Your task to perform on an android device: turn on translation in the chrome app Image 0: 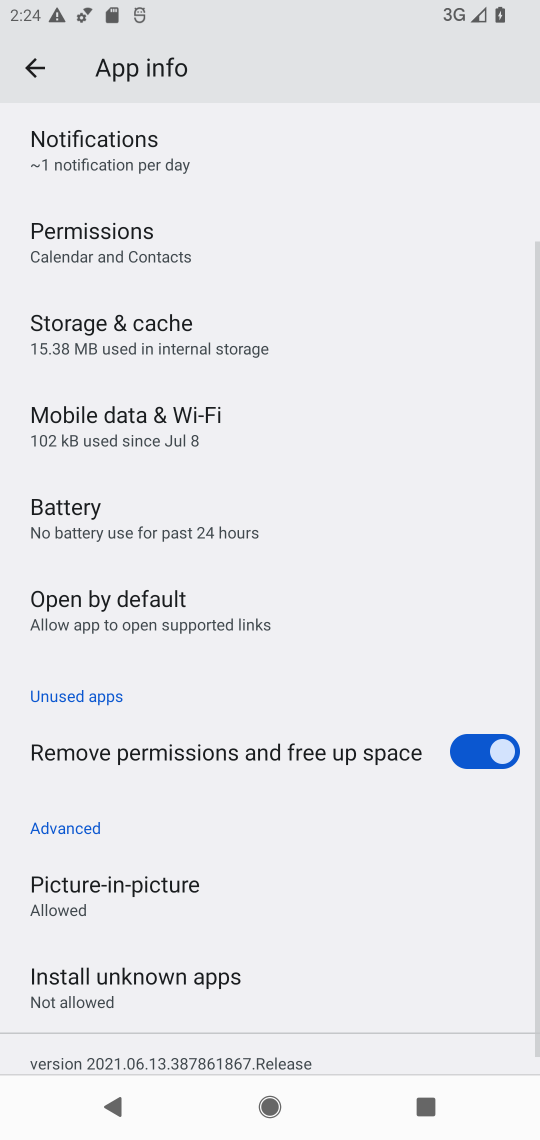
Step 0: press home button
Your task to perform on an android device: turn on translation in the chrome app Image 1: 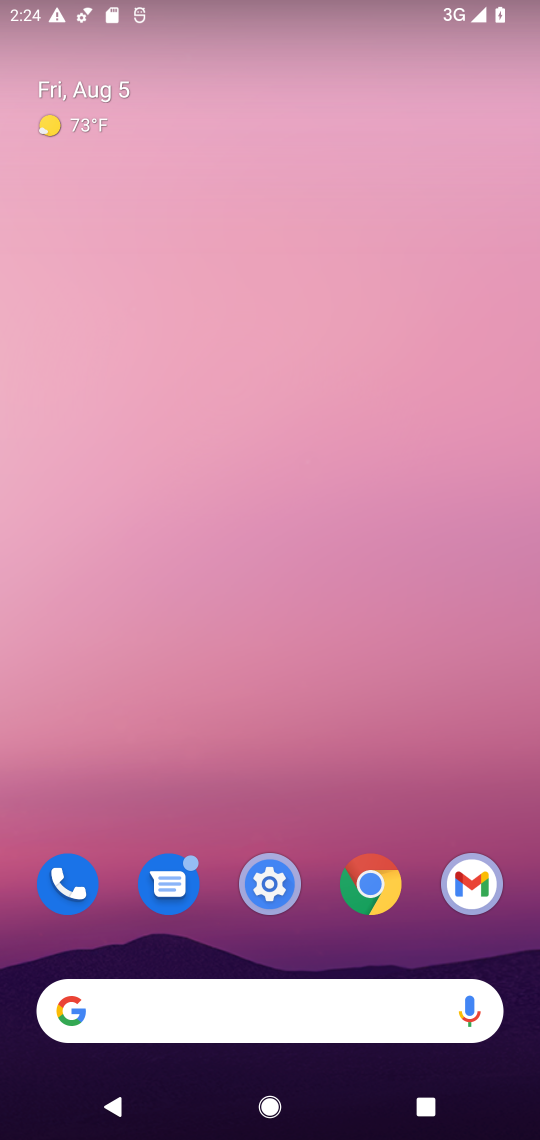
Step 1: drag from (427, 957) to (311, 60)
Your task to perform on an android device: turn on translation in the chrome app Image 2: 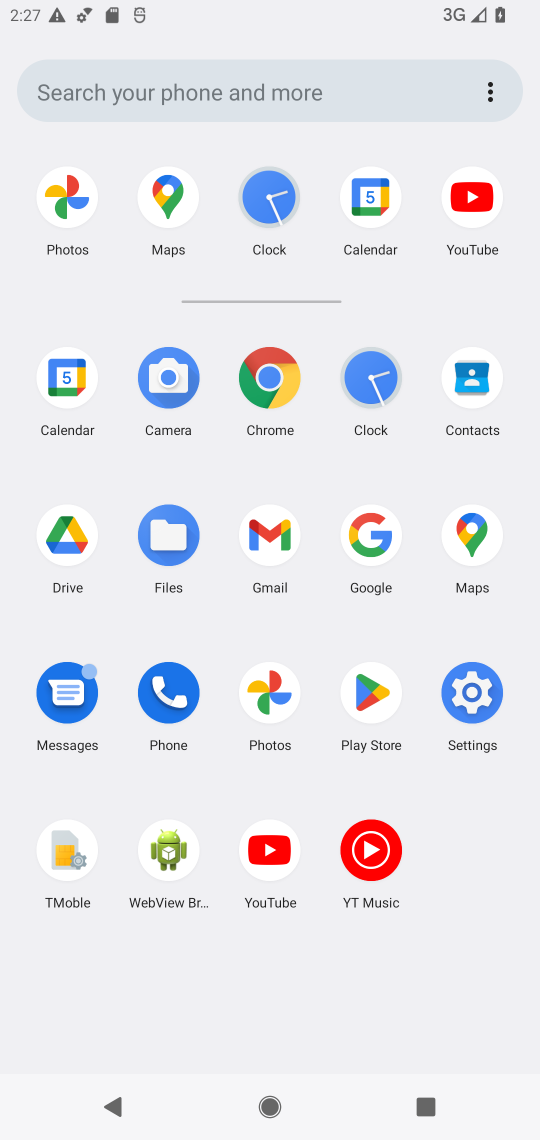
Step 2: click (264, 397)
Your task to perform on an android device: turn on translation in the chrome app Image 3: 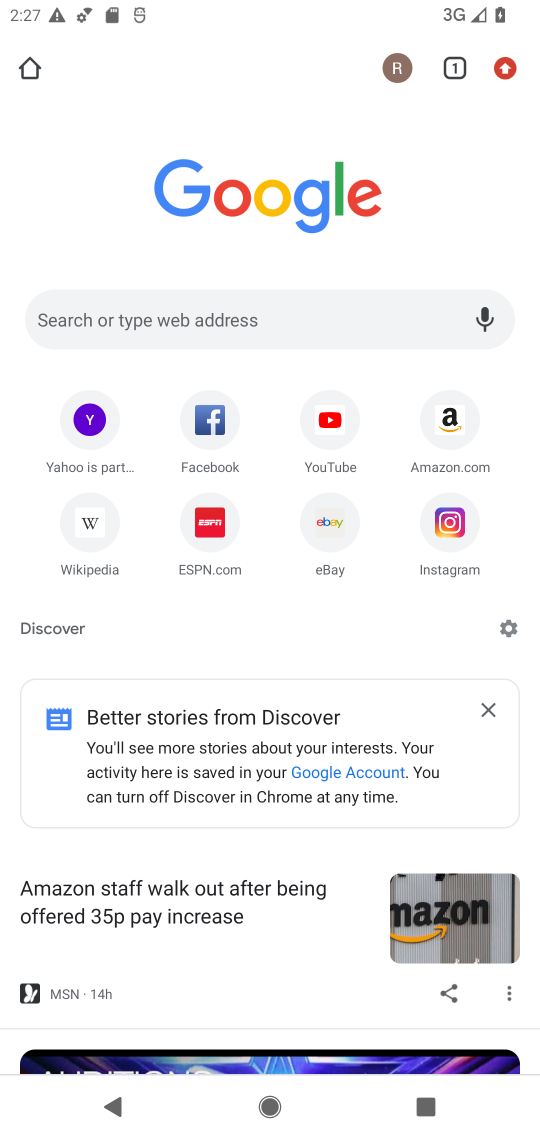
Step 3: click (507, 68)
Your task to perform on an android device: turn on translation in the chrome app Image 4: 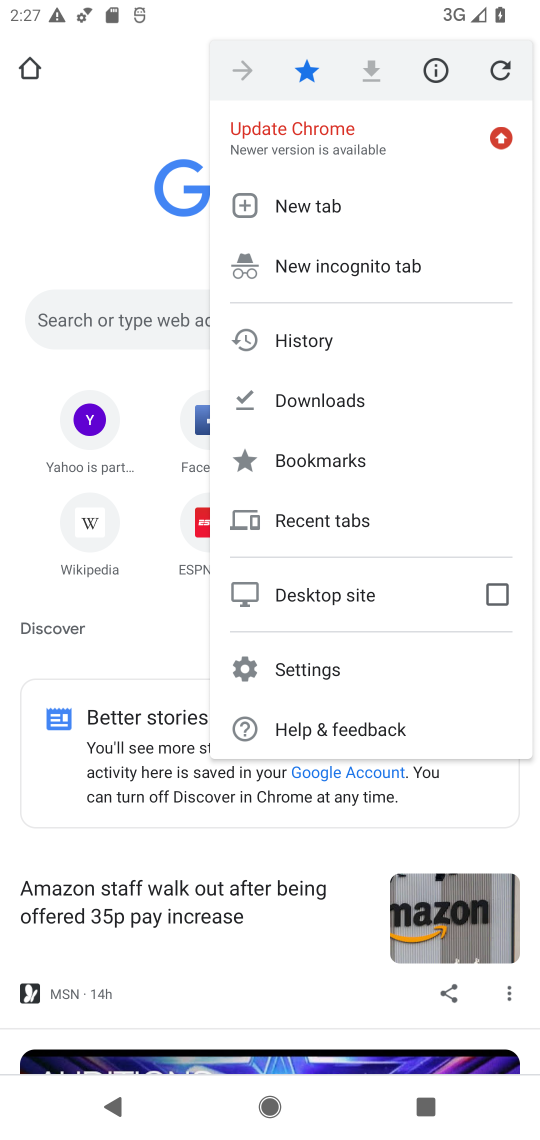
Step 4: click (351, 675)
Your task to perform on an android device: turn on translation in the chrome app Image 5: 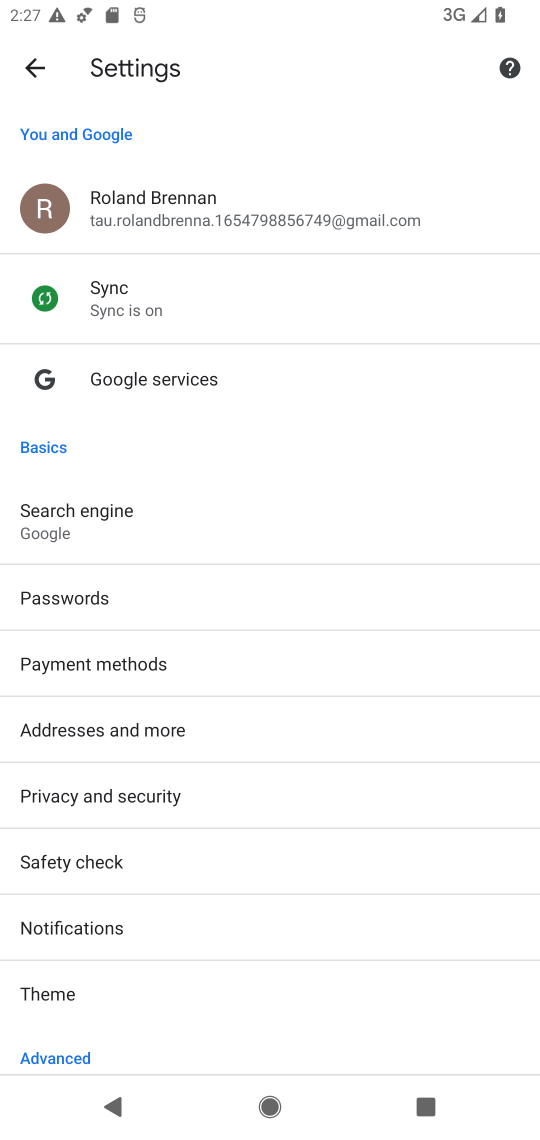
Step 5: drag from (110, 969) to (151, 274)
Your task to perform on an android device: turn on translation in the chrome app Image 6: 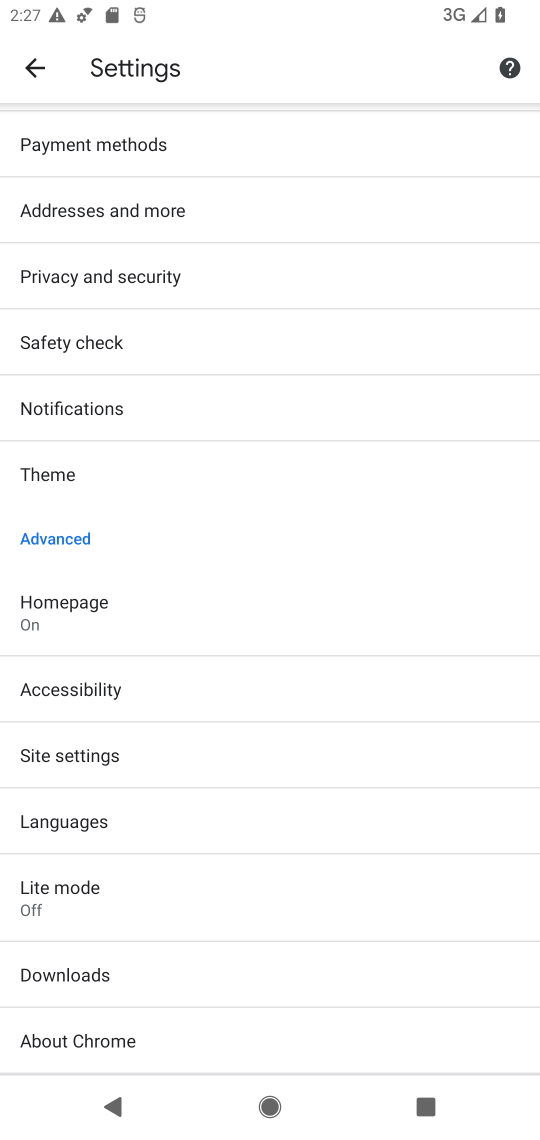
Step 6: click (94, 812)
Your task to perform on an android device: turn on translation in the chrome app Image 7: 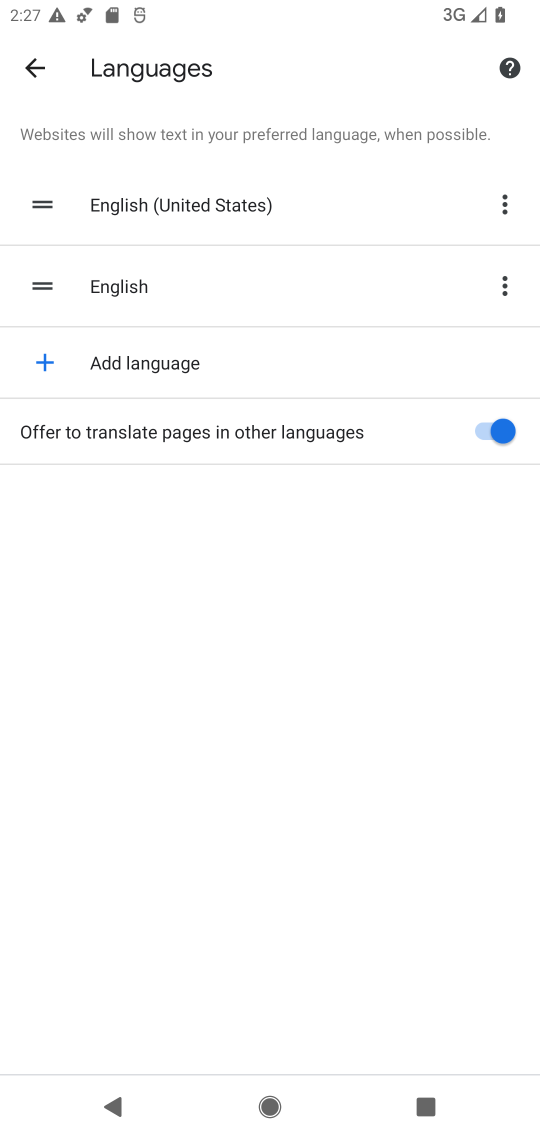
Step 7: task complete